Your task to perform on an android device: all mails in gmail Image 0: 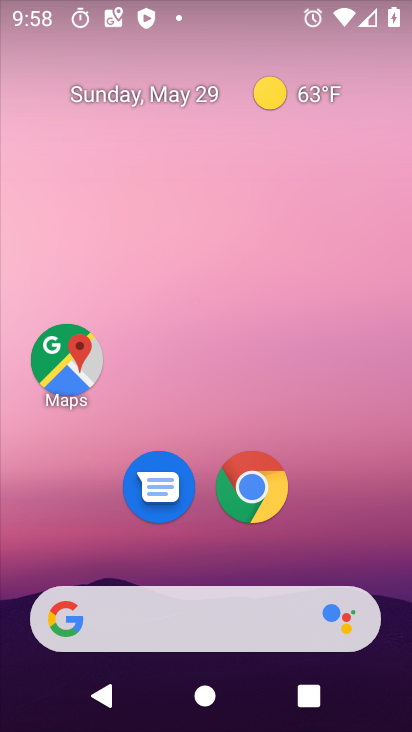
Step 0: drag from (154, 568) to (249, 17)
Your task to perform on an android device: all mails in gmail Image 1: 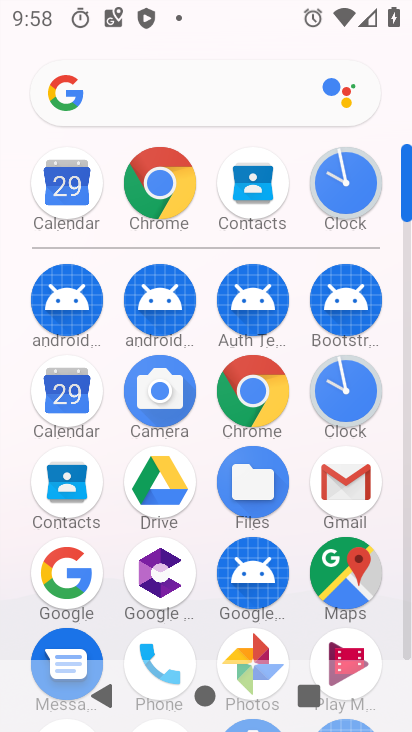
Step 1: click (341, 488)
Your task to perform on an android device: all mails in gmail Image 2: 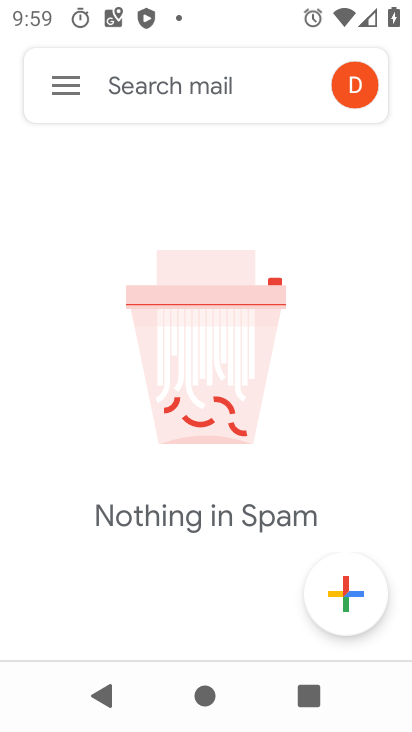
Step 2: click (68, 104)
Your task to perform on an android device: all mails in gmail Image 3: 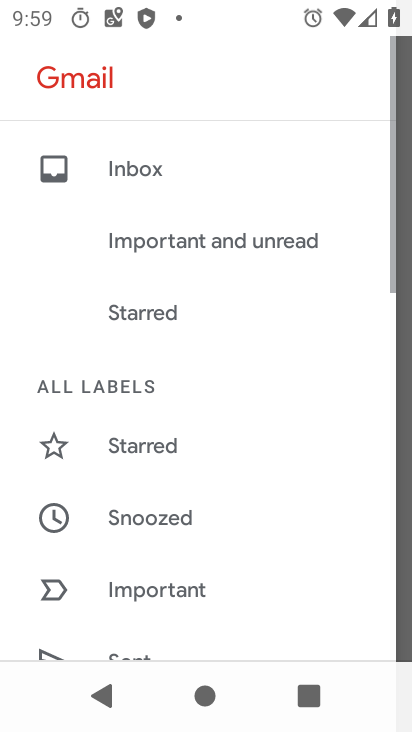
Step 3: drag from (198, 484) to (301, 94)
Your task to perform on an android device: all mails in gmail Image 4: 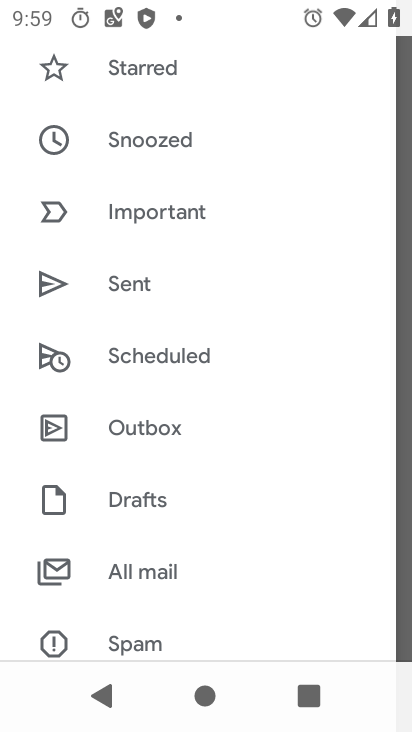
Step 4: click (161, 587)
Your task to perform on an android device: all mails in gmail Image 5: 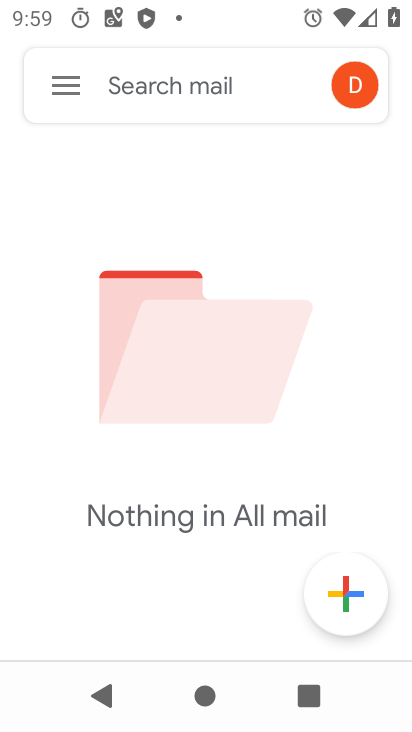
Step 5: task complete